Your task to perform on an android device: Open Youtube and go to the subscriptions tab Image 0: 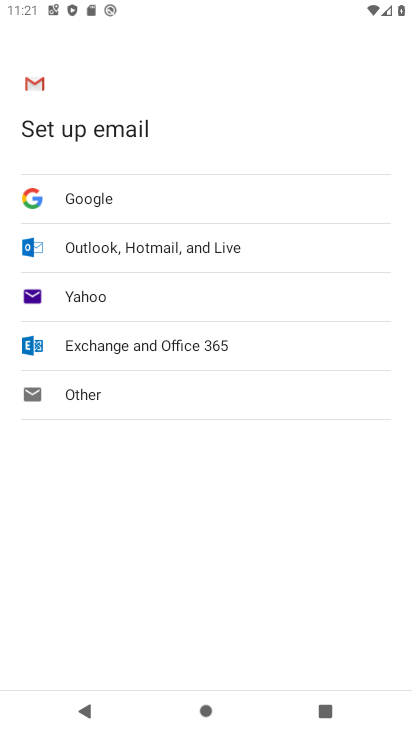
Step 0: press home button
Your task to perform on an android device: Open Youtube and go to the subscriptions tab Image 1: 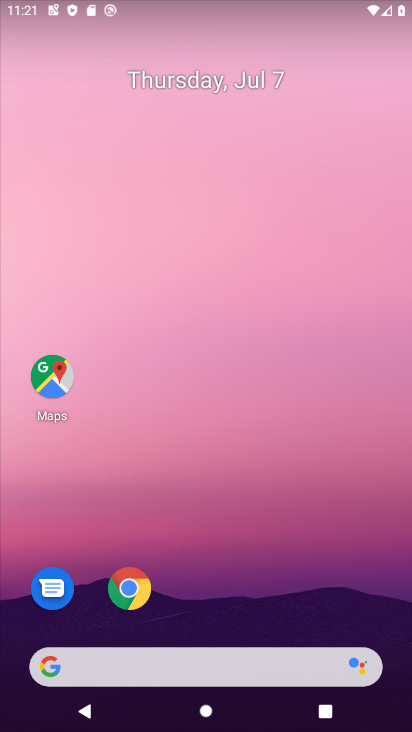
Step 1: drag from (262, 583) to (165, 6)
Your task to perform on an android device: Open Youtube and go to the subscriptions tab Image 2: 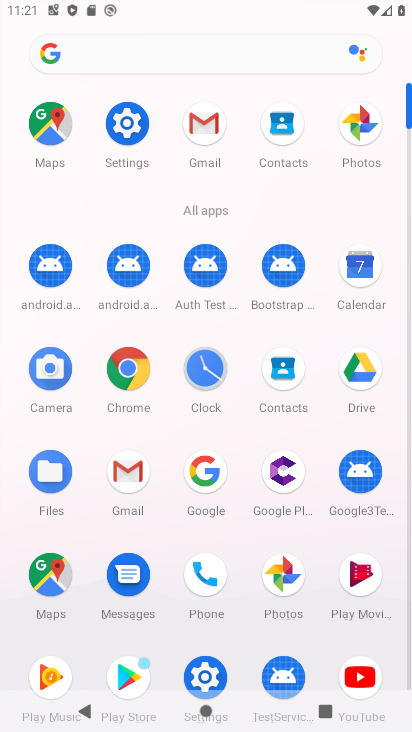
Step 2: click (355, 669)
Your task to perform on an android device: Open Youtube and go to the subscriptions tab Image 3: 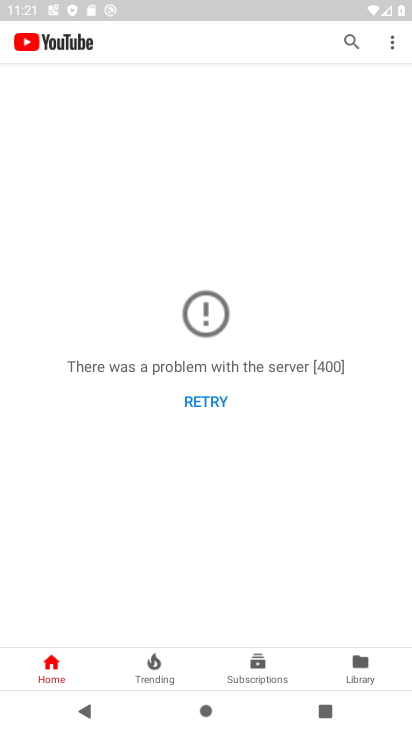
Step 3: click (259, 663)
Your task to perform on an android device: Open Youtube and go to the subscriptions tab Image 4: 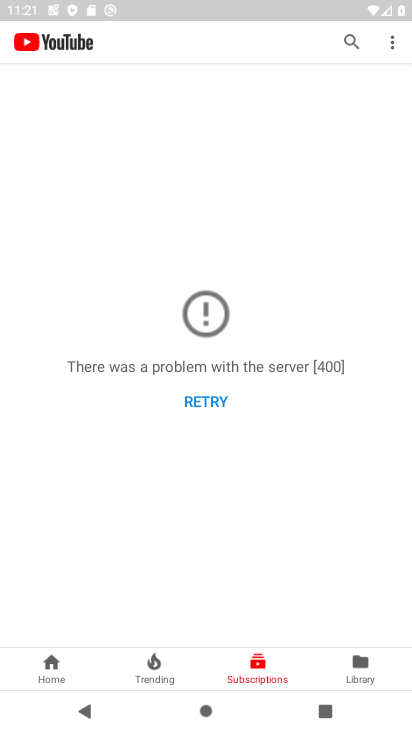
Step 4: click (194, 398)
Your task to perform on an android device: Open Youtube and go to the subscriptions tab Image 5: 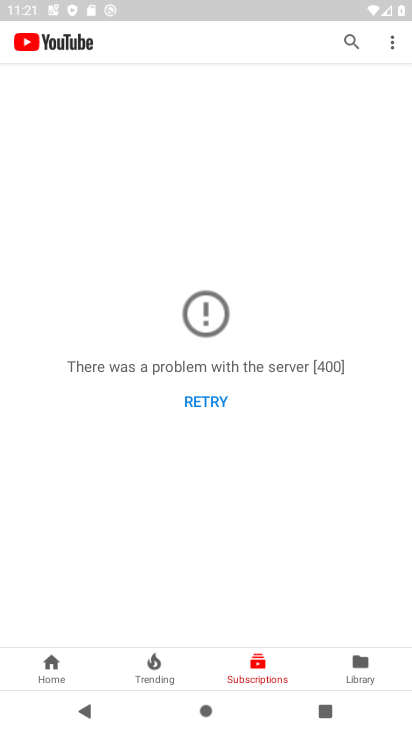
Step 5: click (194, 398)
Your task to perform on an android device: Open Youtube and go to the subscriptions tab Image 6: 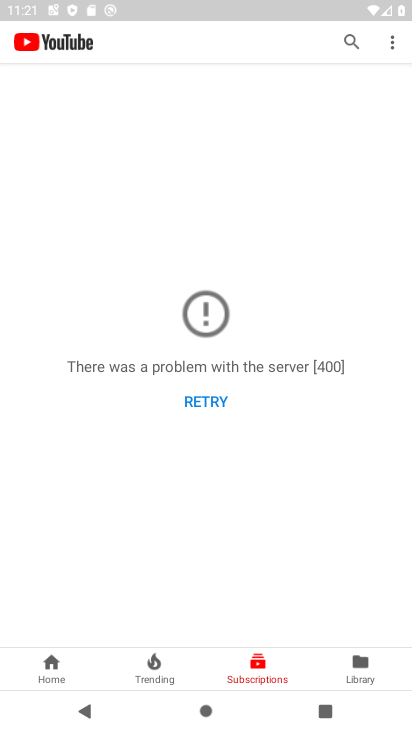
Step 6: click (194, 398)
Your task to perform on an android device: Open Youtube and go to the subscriptions tab Image 7: 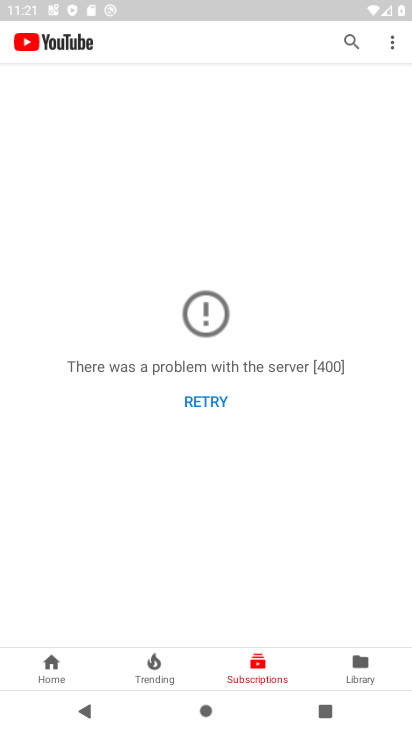
Step 7: click (194, 398)
Your task to perform on an android device: Open Youtube and go to the subscriptions tab Image 8: 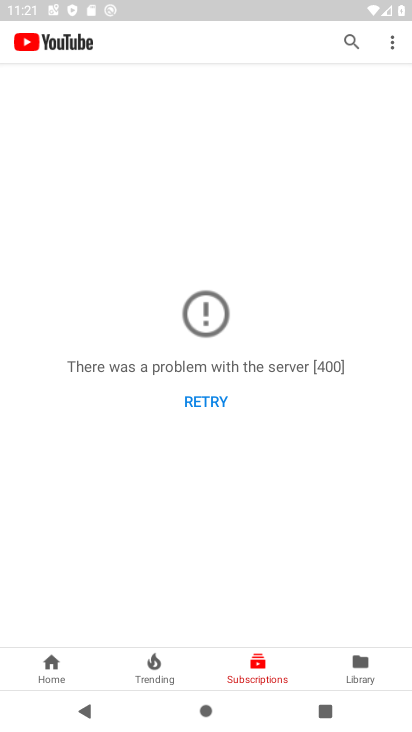
Step 8: click (194, 398)
Your task to perform on an android device: Open Youtube and go to the subscriptions tab Image 9: 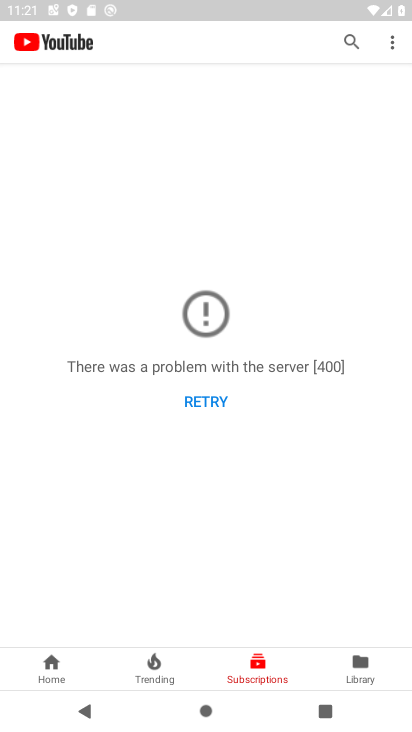
Step 9: click (194, 398)
Your task to perform on an android device: Open Youtube and go to the subscriptions tab Image 10: 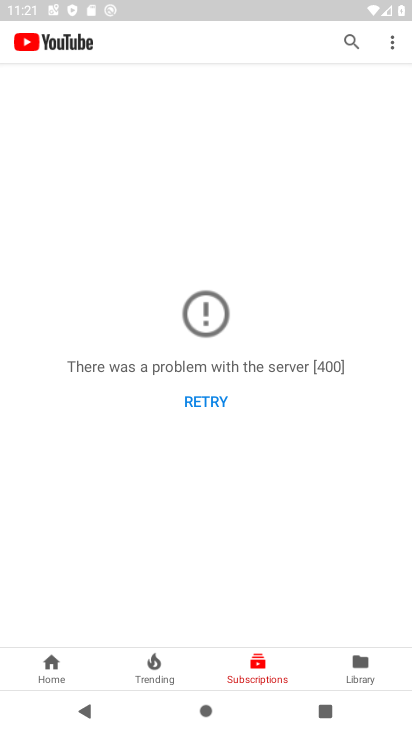
Step 10: click (194, 398)
Your task to perform on an android device: Open Youtube and go to the subscriptions tab Image 11: 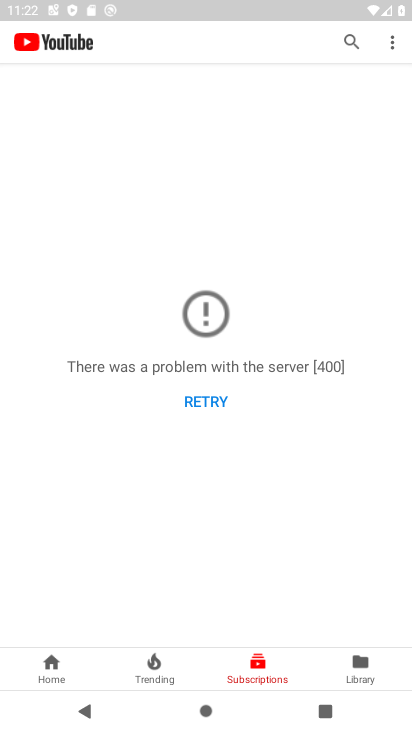
Step 11: click (194, 398)
Your task to perform on an android device: Open Youtube and go to the subscriptions tab Image 12: 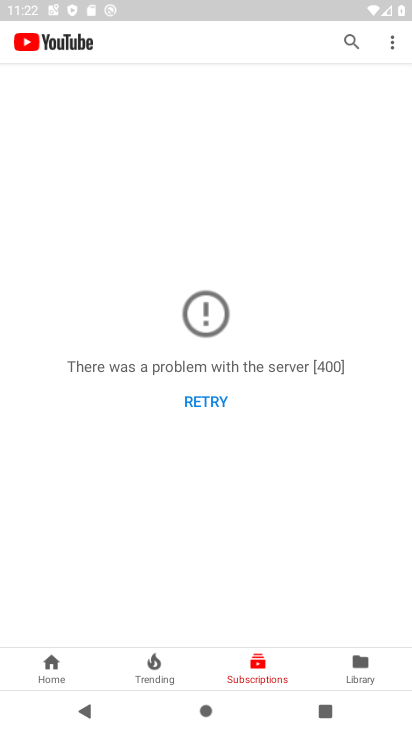
Step 12: click (194, 398)
Your task to perform on an android device: Open Youtube and go to the subscriptions tab Image 13: 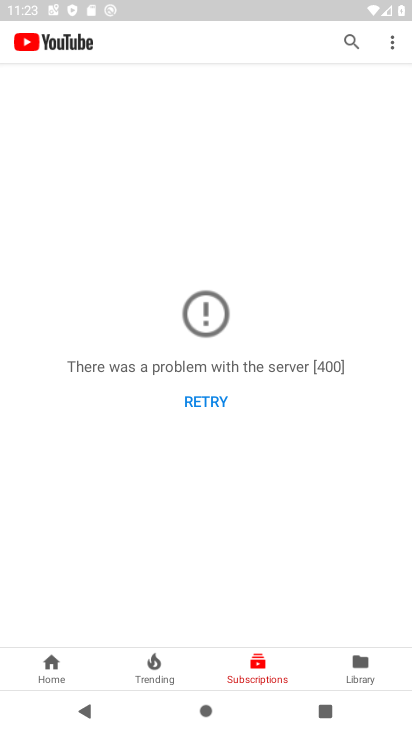
Step 13: click (200, 395)
Your task to perform on an android device: Open Youtube and go to the subscriptions tab Image 14: 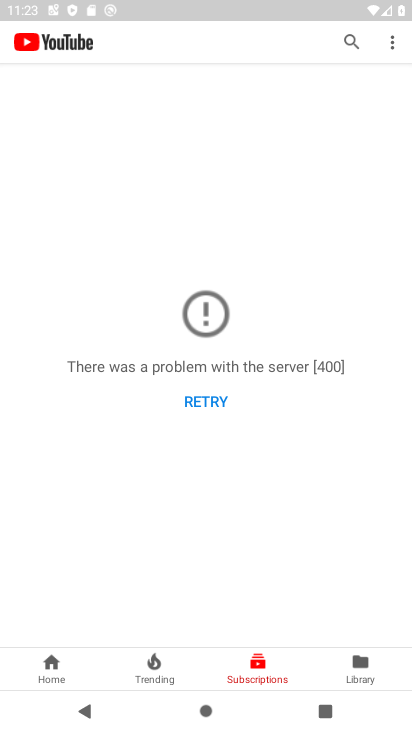
Step 14: task complete